Your task to perform on an android device: turn off sleep mode Image 0: 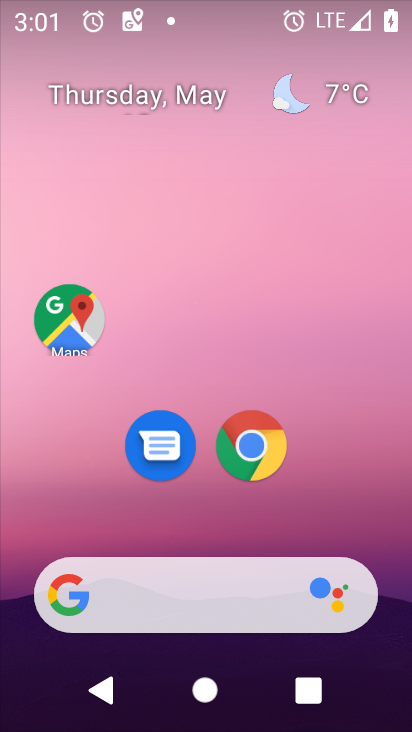
Step 0: drag from (359, 540) to (321, 5)
Your task to perform on an android device: turn off sleep mode Image 1: 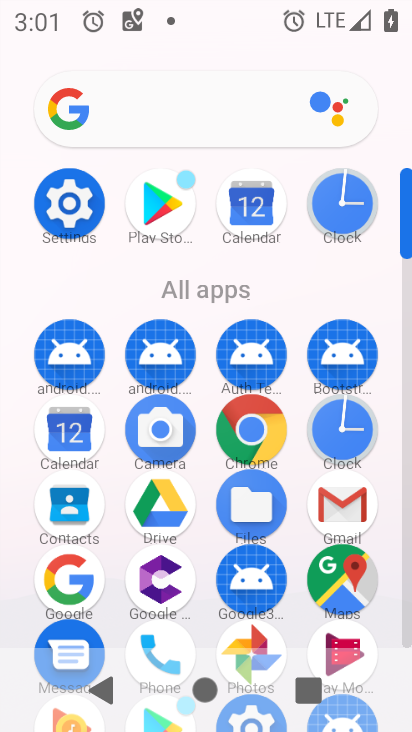
Step 1: click (67, 211)
Your task to perform on an android device: turn off sleep mode Image 2: 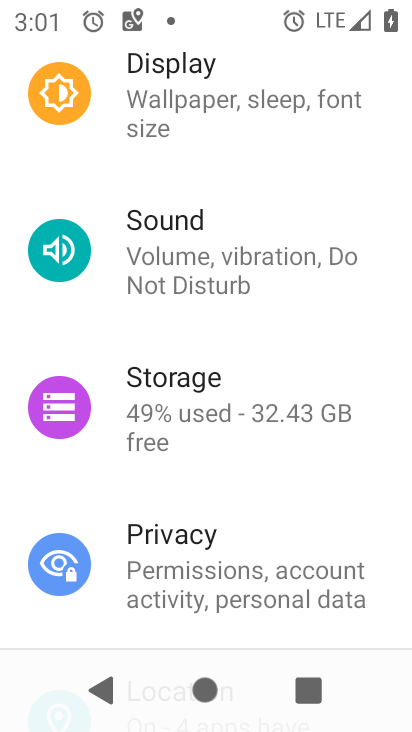
Step 2: click (181, 104)
Your task to perform on an android device: turn off sleep mode Image 3: 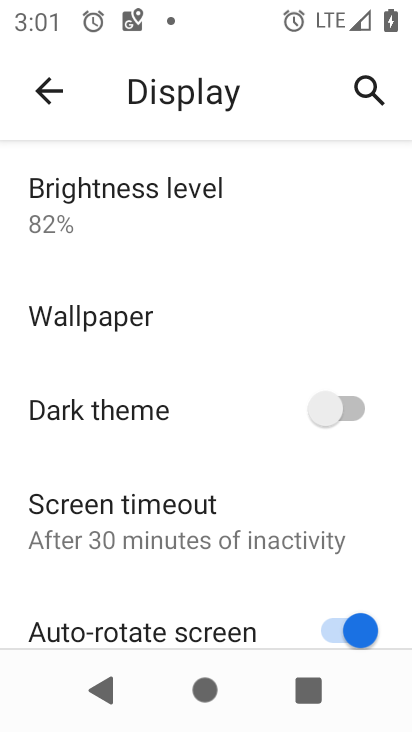
Step 3: drag from (144, 371) to (151, 179)
Your task to perform on an android device: turn off sleep mode Image 4: 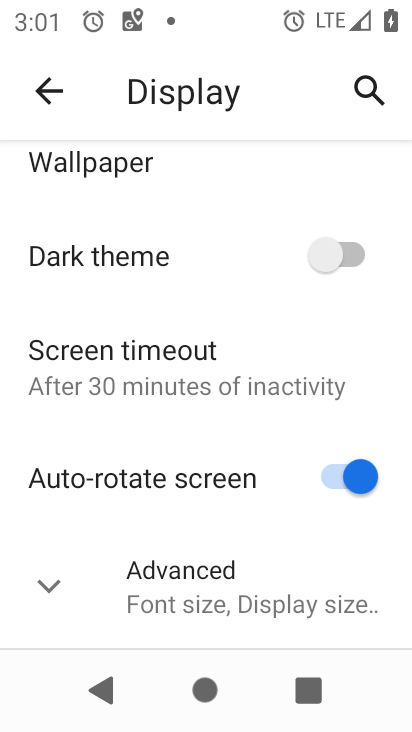
Step 4: drag from (179, 564) to (174, 319)
Your task to perform on an android device: turn off sleep mode Image 5: 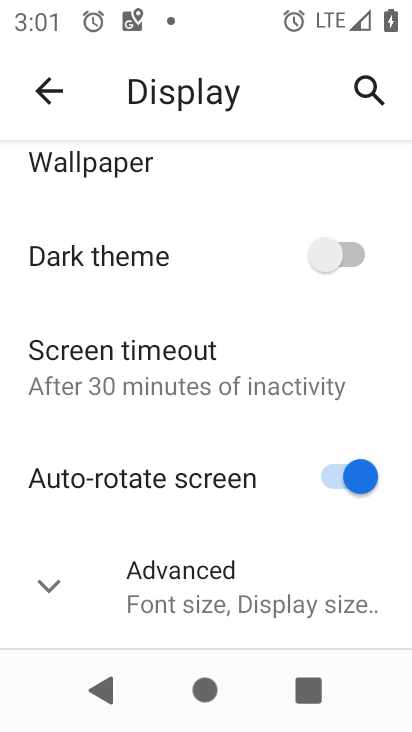
Step 5: click (51, 598)
Your task to perform on an android device: turn off sleep mode Image 6: 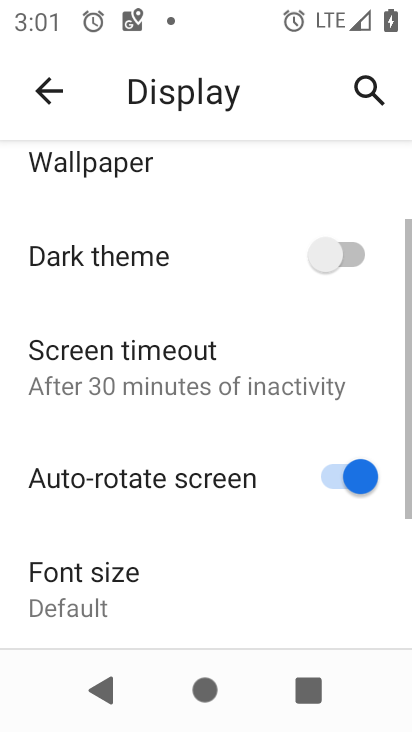
Step 6: task complete